Your task to perform on an android device: change the upload size in google photos Image 0: 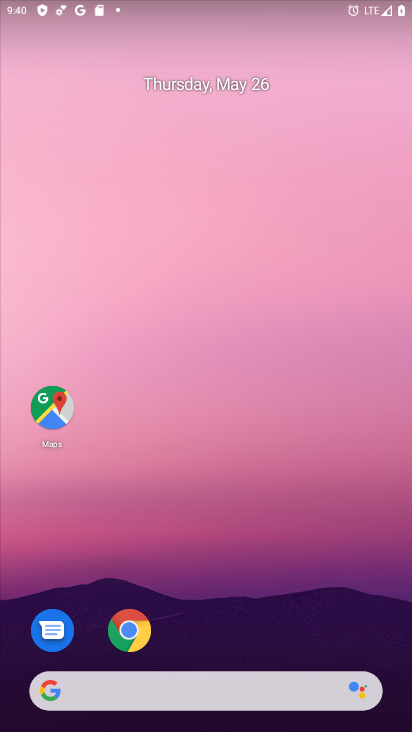
Step 0: click (194, 656)
Your task to perform on an android device: change the upload size in google photos Image 1: 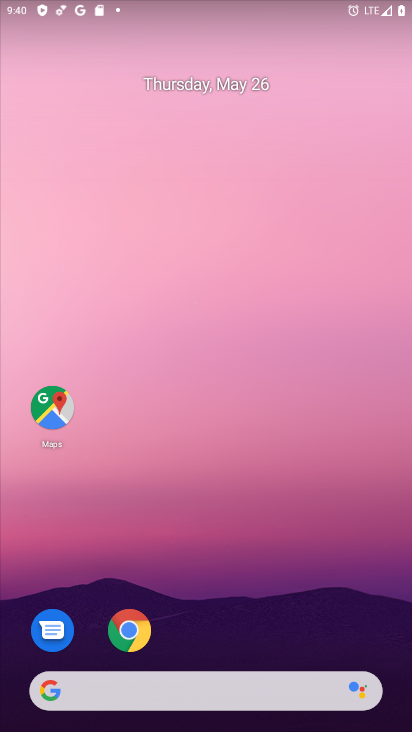
Step 1: drag from (194, 656) to (220, 139)
Your task to perform on an android device: change the upload size in google photos Image 2: 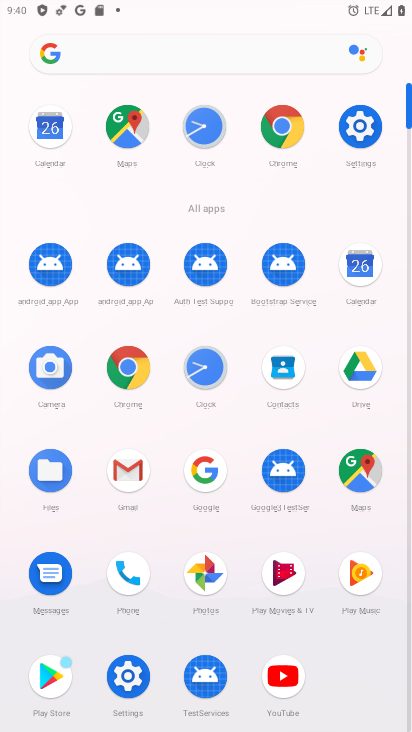
Step 2: click (195, 551)
Your task to perform on an android device: change the upload size in google photos Image 3: 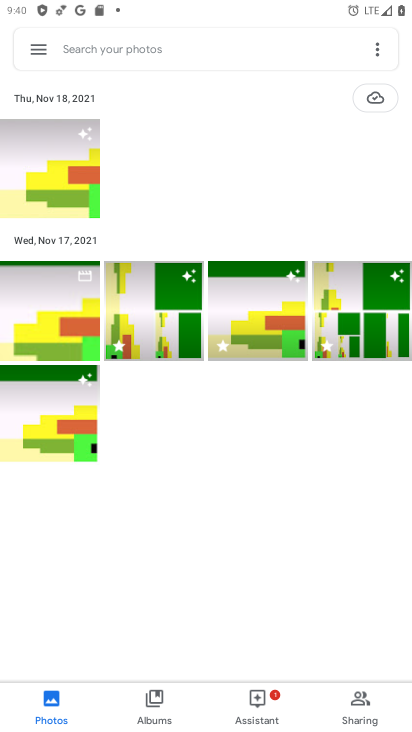
Step 3: click (32, 33)
Your task to perform on an android device: change the upload size in google photos Image 4: 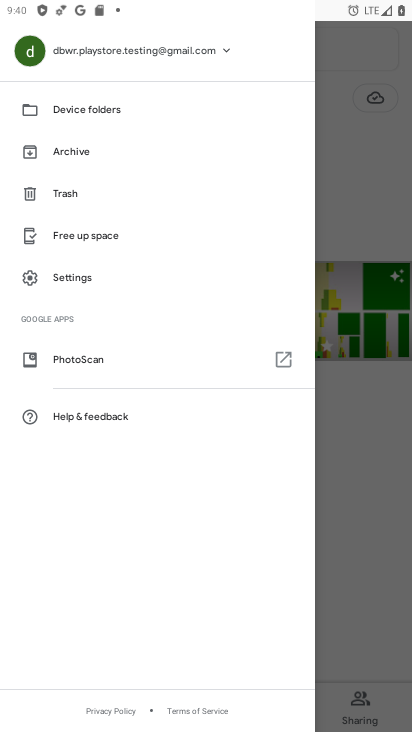
Step 4: click (48, 269)
Your task to perform on an android device: change the upload size in google photos Image 5: 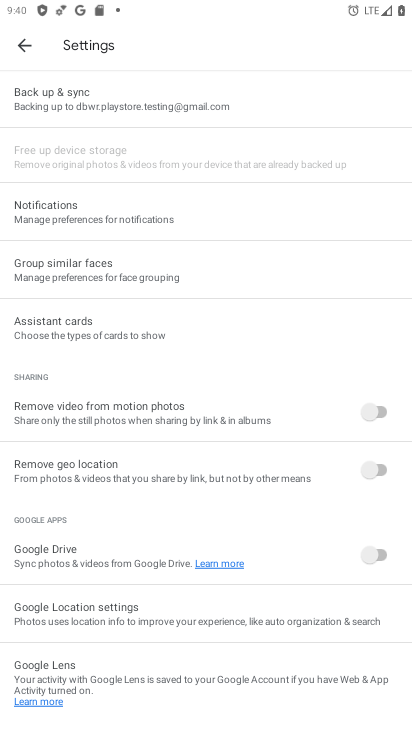
Step 5: click (132, 114)
Your task to perform on an android device: change the upload size in google photos Image 6: 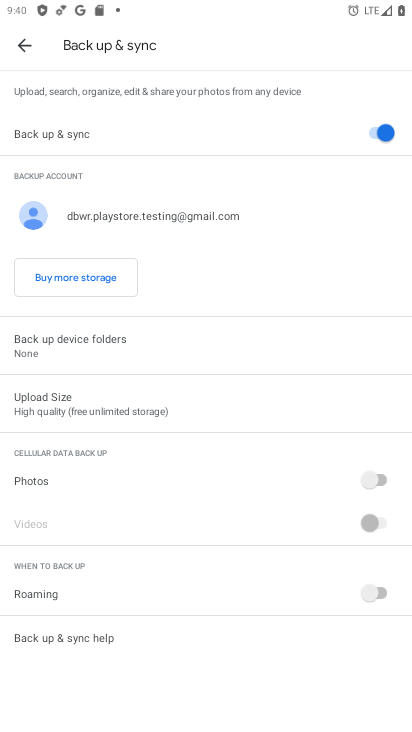
Step 6: click (81, 395)
Your task to perform on an android device: change the upload size in google photos Image 7: 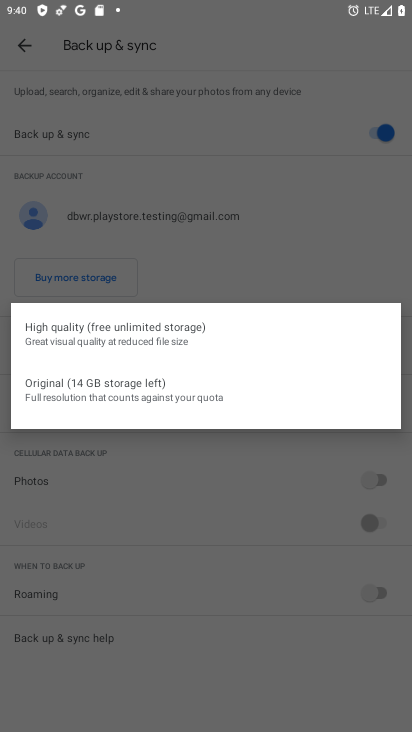
Step 7: click (74, 377)
Your task to perform on an android device: change the upload size in google photos Image 8: 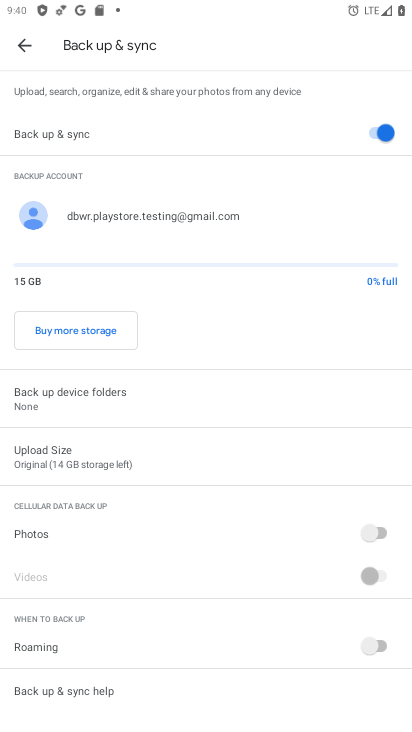
Step 8: task complete